Your task to perform on an android device: Clear the cart on costco.com. Add "apple airpods pro" to the cart on costco.com, then select checkout. Image 0: 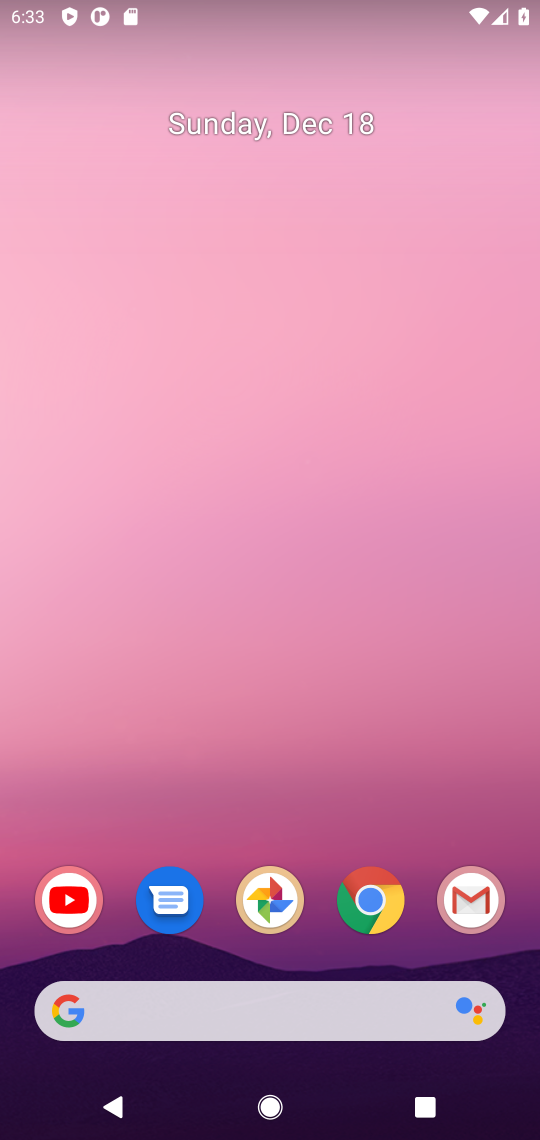
Step 0: click (358, 899)
Your task to perform on an android device: Clear the cart on costco.com. Add "apple airpods pro" to the cart on costco.com, then select checkout. Image 1: 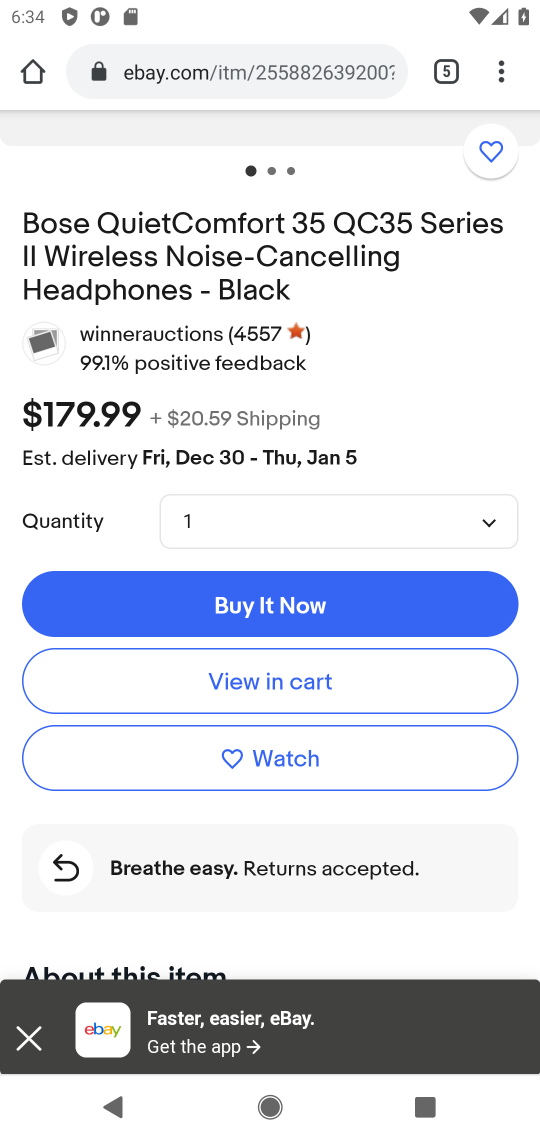
Step 1: press home button
Your task to perform on an android device: Clear the cart on costco.com. Add "apple airpods pro" to the cart on costco.com, then select checkout. Image 2: 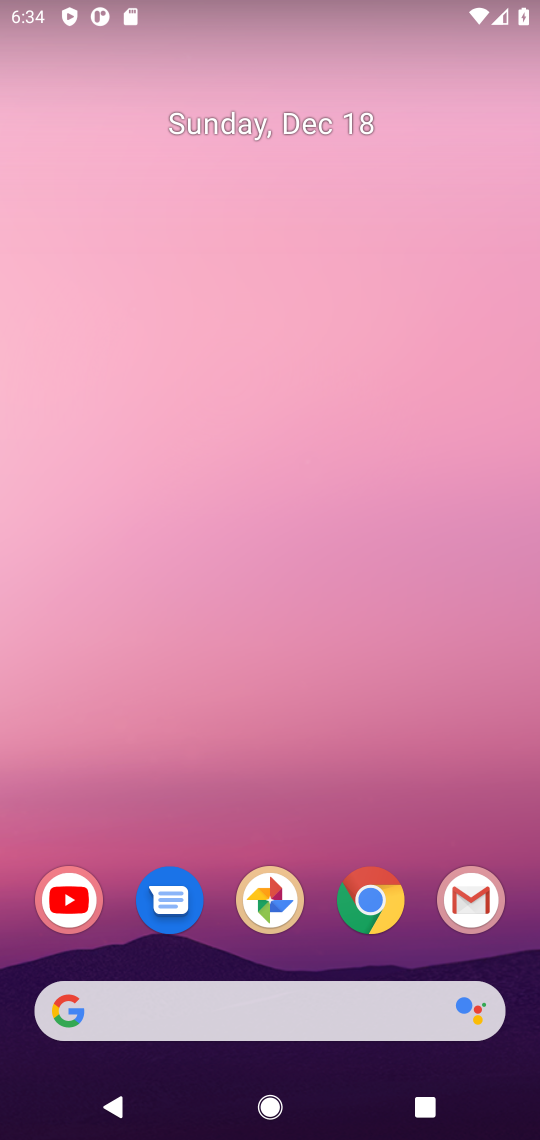
Step 2: click (349, 915)
Your task to perform on an android device: Clear the cart on costco.com. Add "apple airpods pro" to the cart on costco.com, then select checkout. Image 3: 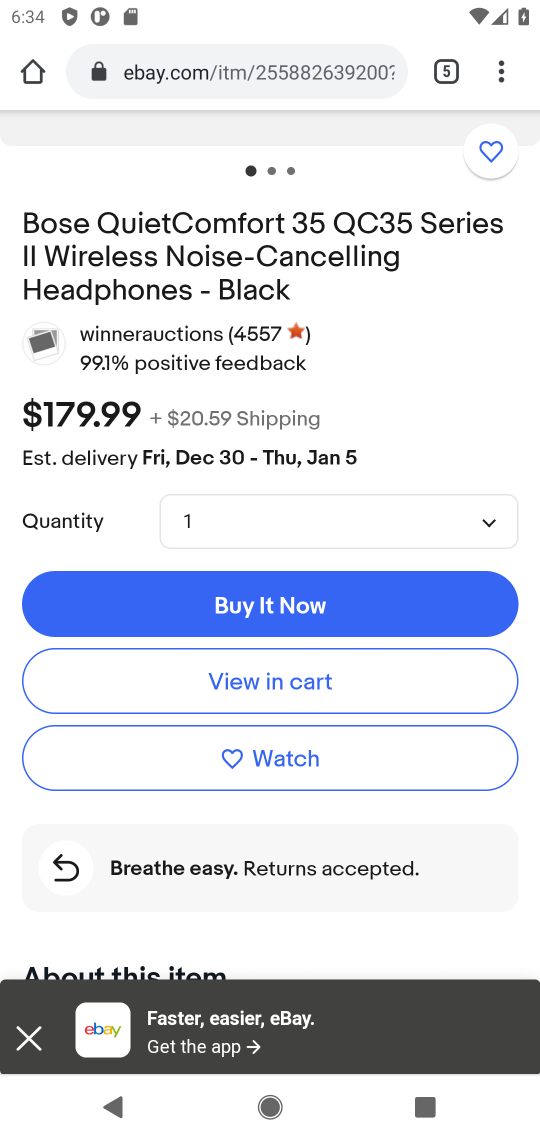
Step 3: click (450, 71)
Your task to perform on an android device: Clear the cart on costco.com. Add "apple airpods pro" to the cart on costco.com, then select checkout. Image 4: 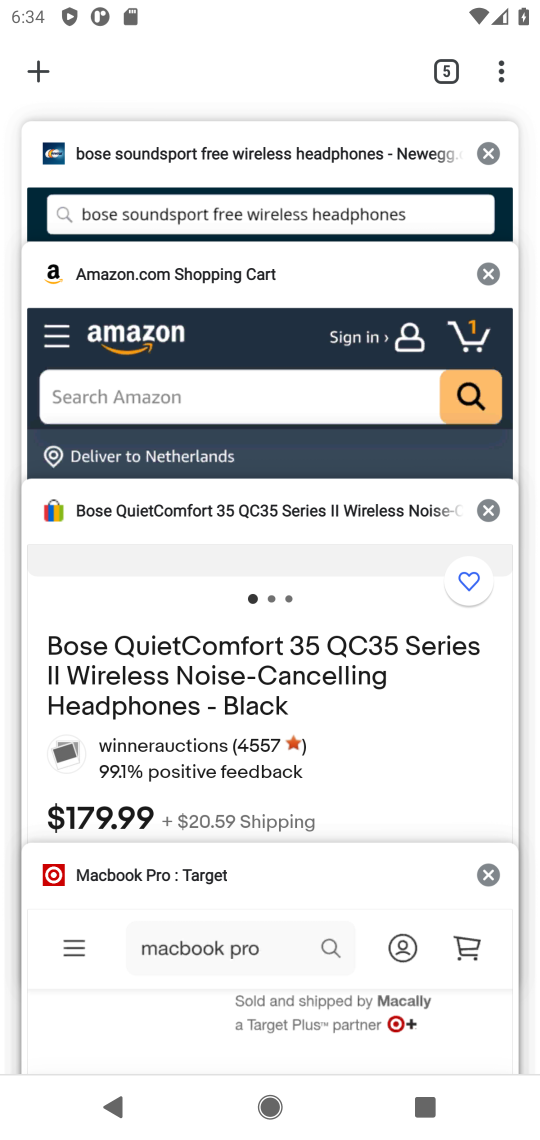
Step 4: drag from (200, 905) to (226, 624)
Your task to perform on an android device: Clear the cart on costco.com. Add "apple airpods pro" to the cart on costco.com, then select checkout. Image 5: 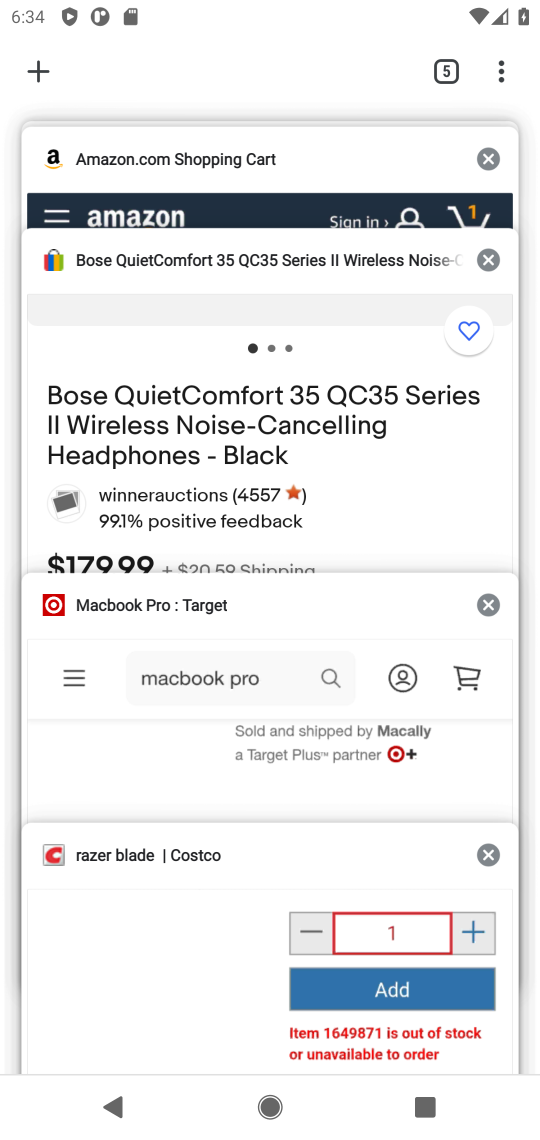
Step 5: click (199, 865)
Your task to perform on an android device: Clear the cart on costco.com. Add "apple airpods pro" to the cart on costco.com, then select checkout. Image 6: 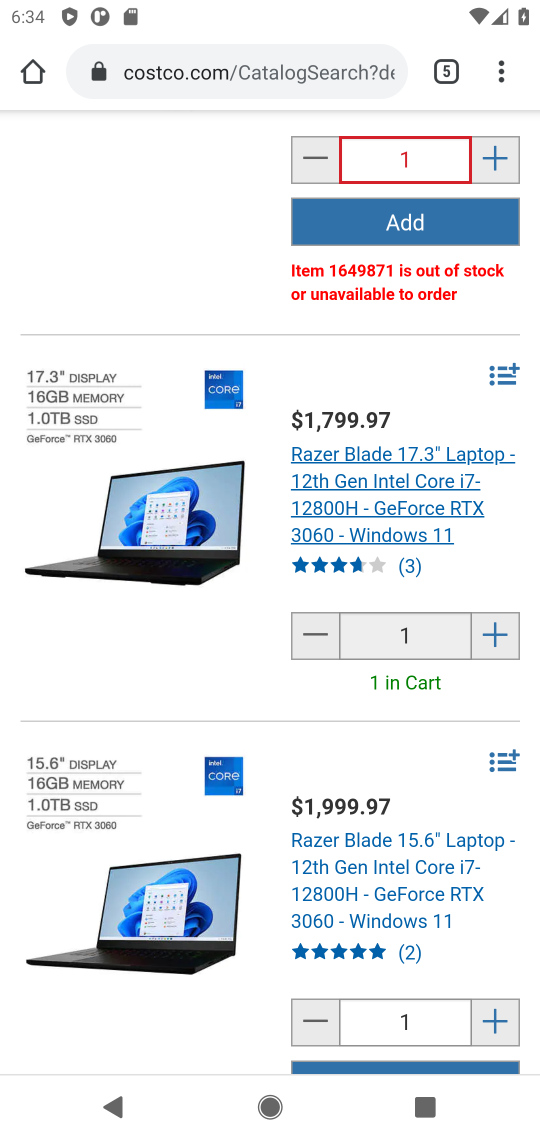
Step 6: drag from (132, 186) to (156, 1125)
Your task to perform on an android device: Clear the cart on costco.com. Add "apple airpods pro" to the cart on costco.com, then select checkout. Image 7: 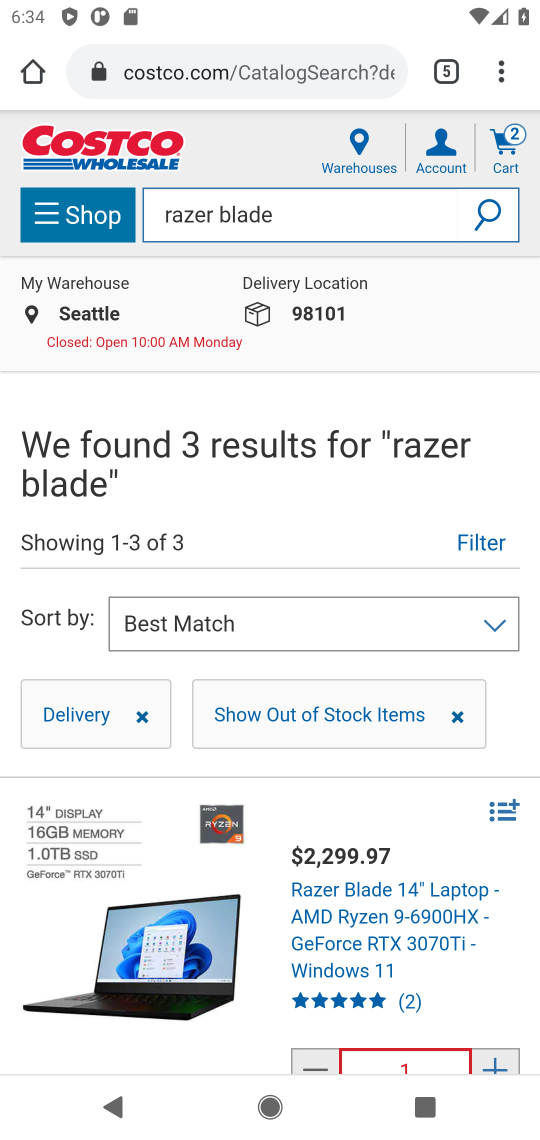
Step 7: click (359, 217)
Your task to perform on an android device: Clear the cart on costco.com. Add "apple airpods pro" to the cart on costco.com, then select checkout. Image 8: 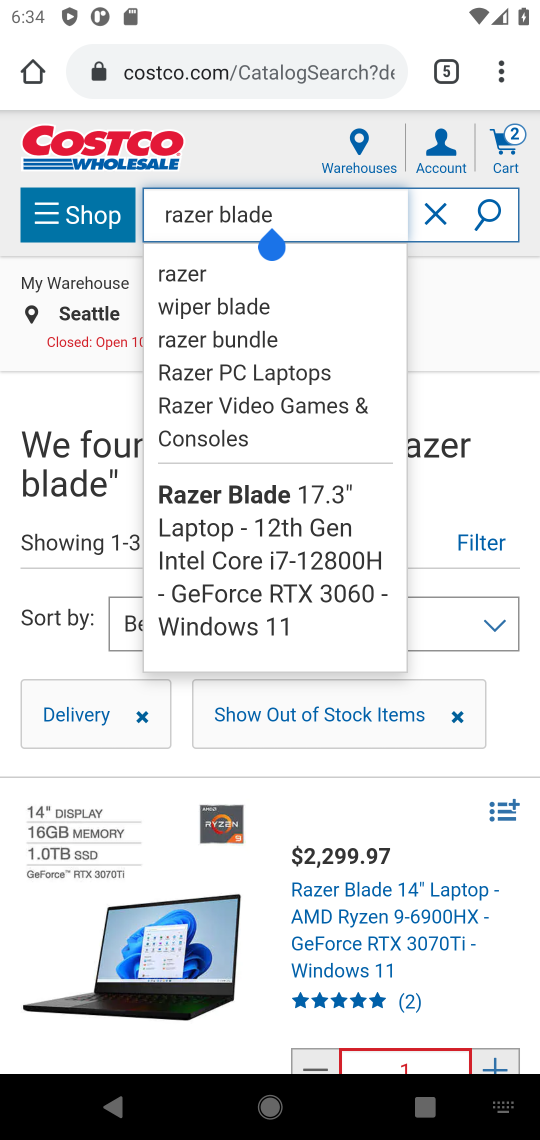
Step 8: click (428, 216)
Your task to perform on an android device: Clear the cart on costco.com. Add "apple airpods pro" to the cart on costco.com, then select checkout. Image 9: 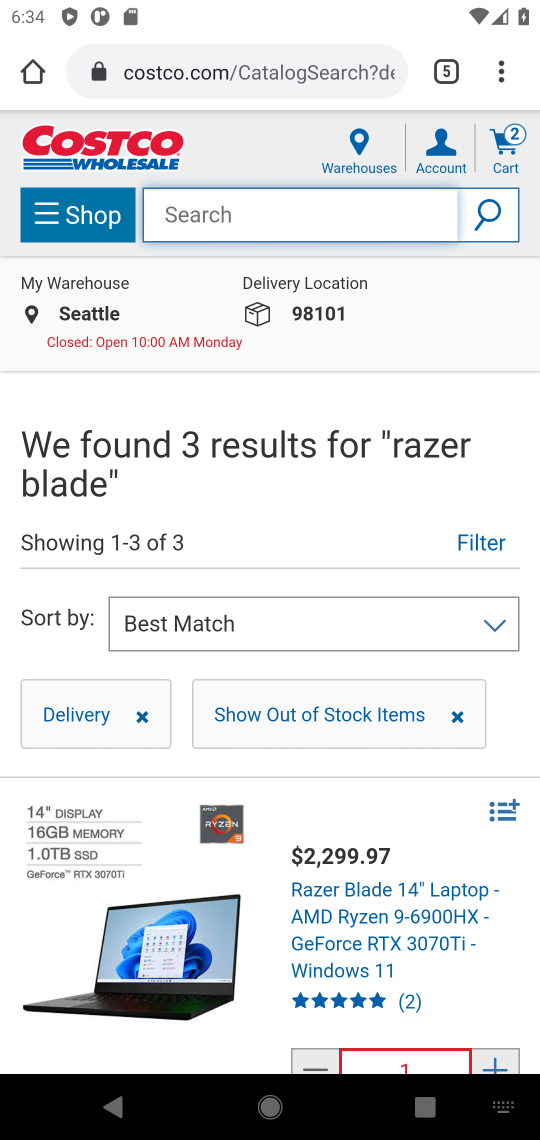
Step 9: type "apple airpods pro"
Your task to perform on an android device: Clear the cart on costco.com. Add "apple airpods pro" to the cart on costco.com, then select checkout. Image 10: 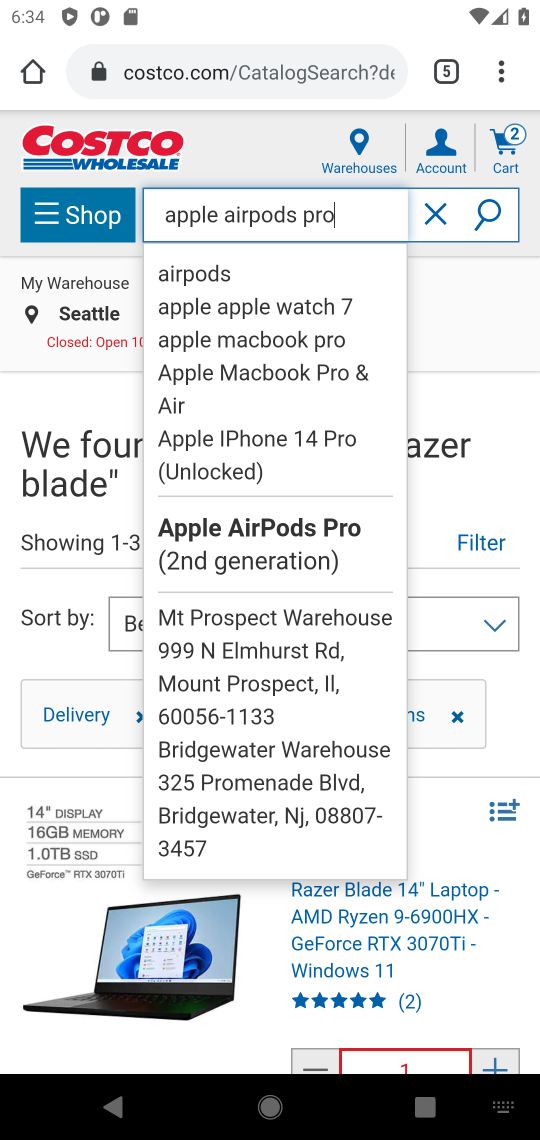
Step 10: click (483, 222)
Your task to perform on an android device: Clear the cart on costco.com. Add "apple airpods pro" to the cart on costco.com, then select checkout. Image 11: 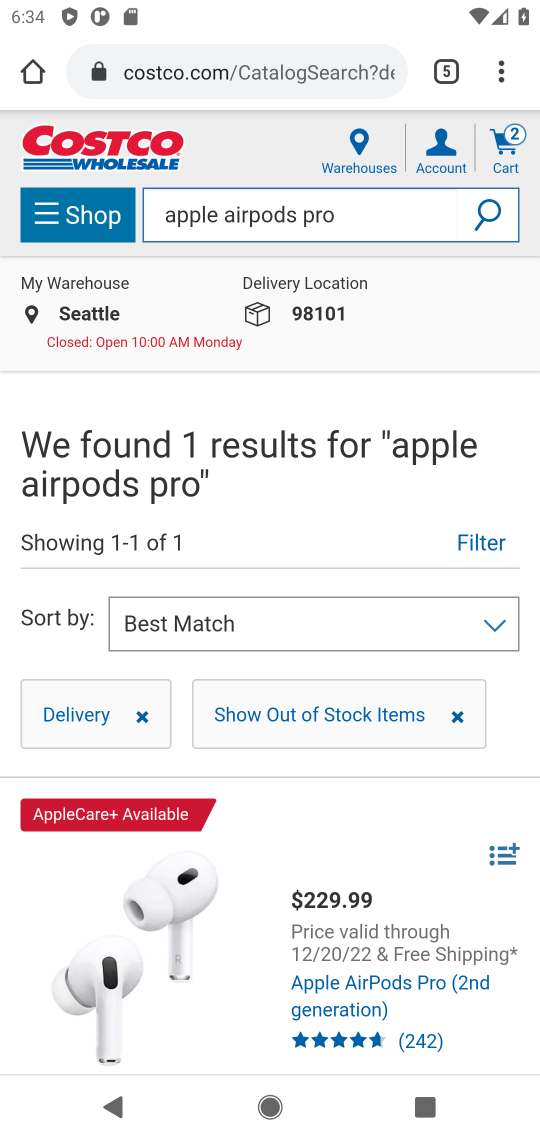
Step 11: drag from (457, 826) to (523, 145)
Your task to perform on an android device: Clear the cart on costco.com. Add "apple airpods pro" to the cart on costco.com, then select checkout. Image 12: 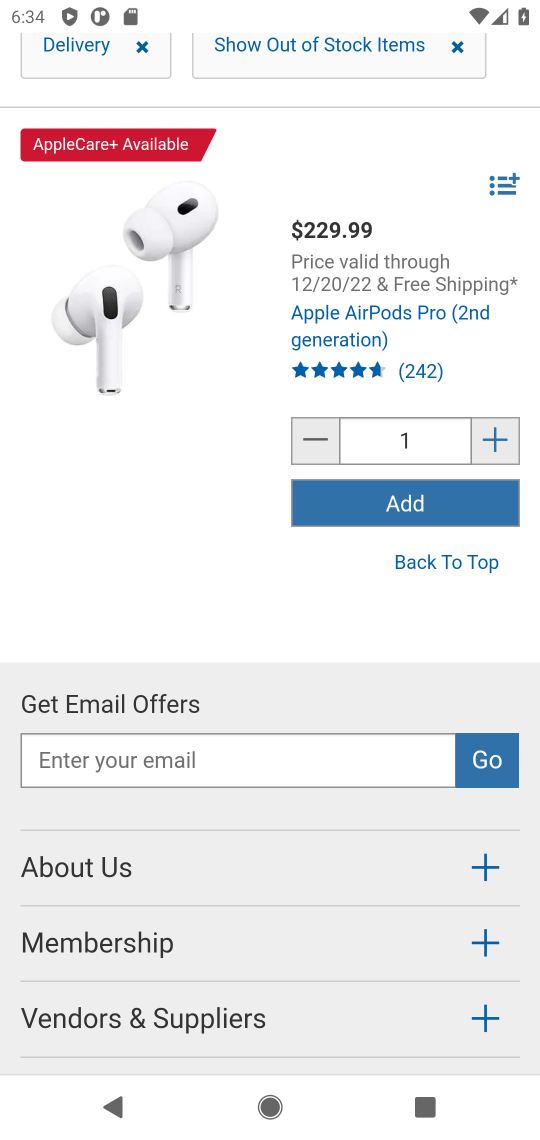
Step 12: click (426, 496)
Your task to perform on an android device: Clear the cart on costco.com. Add "apple airpods pro" to the cart on costco.com, then select checkout. Image 13: 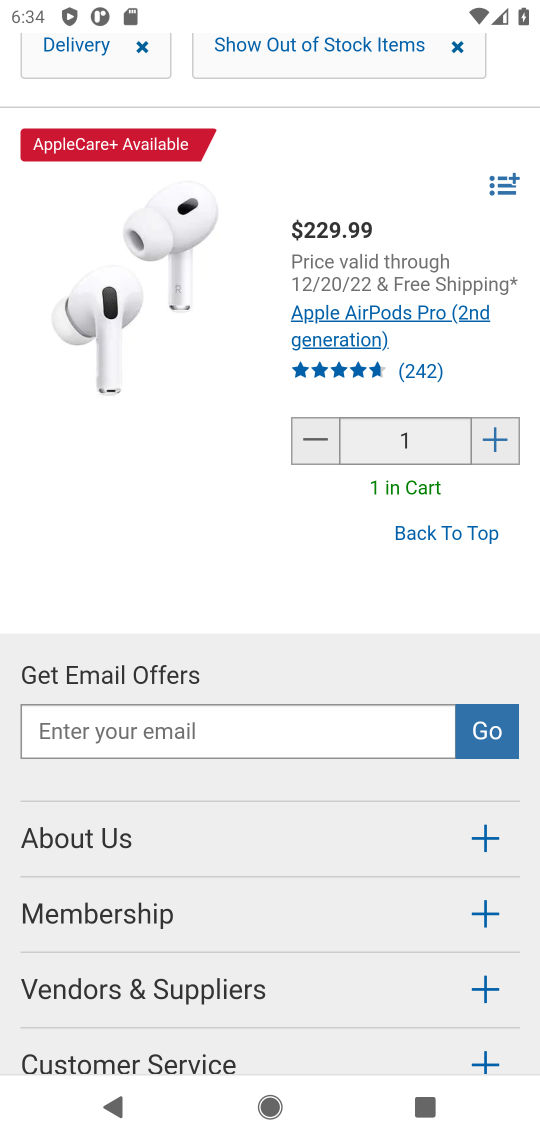
Step 13: task complete